Your task to perform on an android device: Open accessibility settings Image 0: 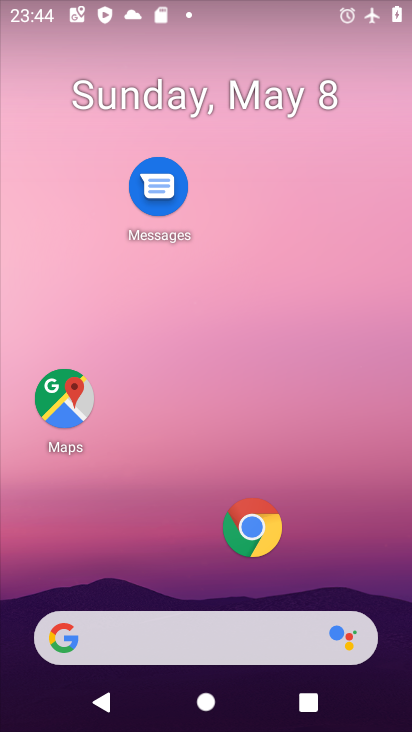
Step 0: click (134, 92)
Your task to perform on an android device: Open accessibility settings Image 1: 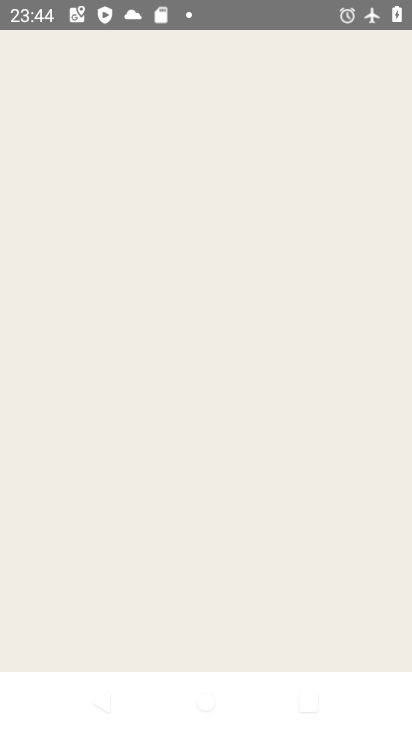
Step 1: press home button
Your task to perform on an android device: Open accessibility settings Image 2: 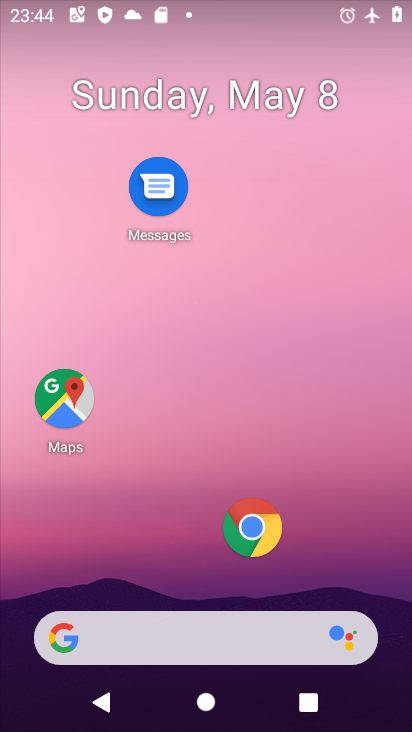
Step 2: drag from (188, 487) to (268, 66)
Your task to perform on an android device: Open accessibility settings Image 3: 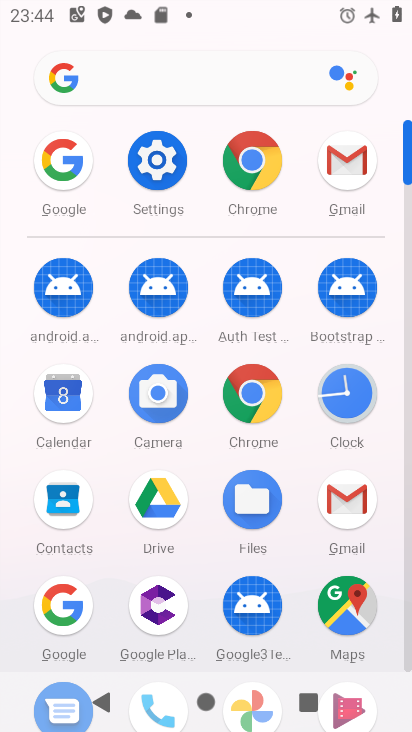
Step 3: click (155, 154)
Your task to perform on an android device: Open accessibility settings Image 4: 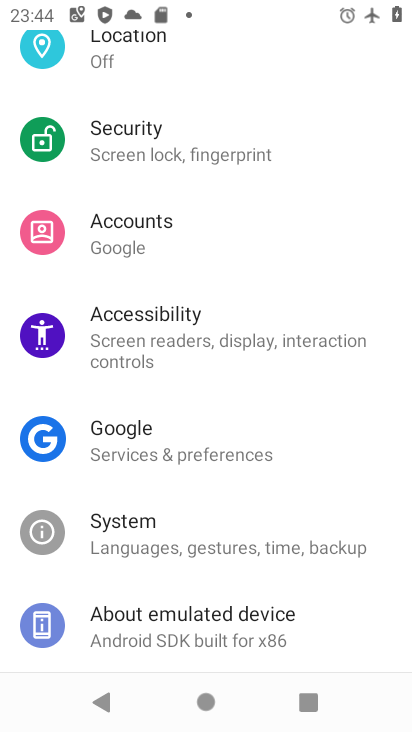
Step 4: click (180, 328)
Your task to perform on an android device: Open accessibility settings Image 5: 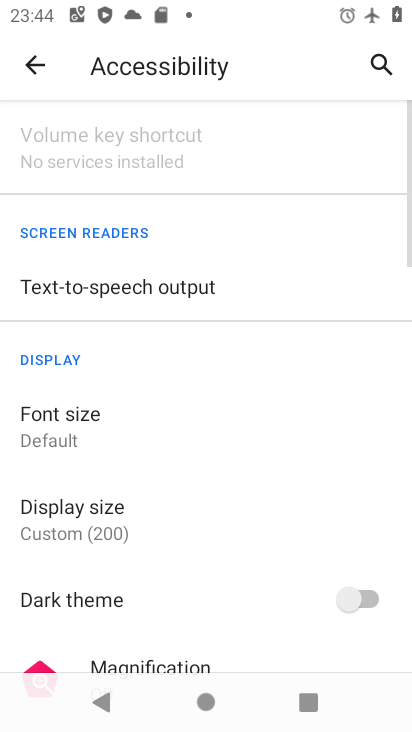
Step 5: task complete